Your task to perform on an android device: Go to display settings Image 0: 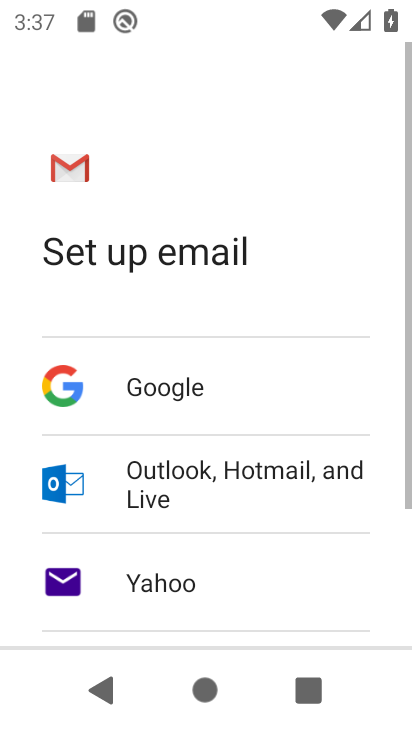
Step 0: press home button
Your task to perform on an android device: Go to display settings Image 1: 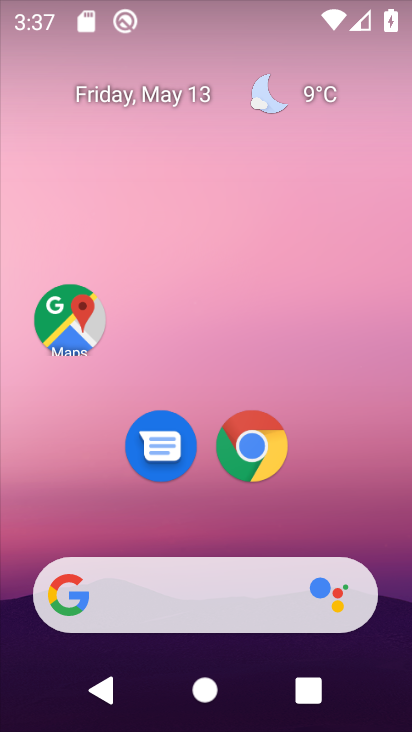
Step 1: drag from (311, 516) to (343, 96)
Your task to perform on an android device: Go to display settings Image 2: 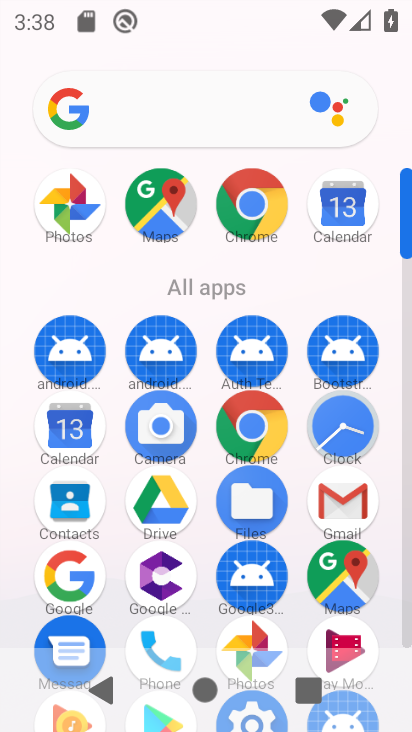
Step 2: drag from (249, 652) to (258, 359)
Your task to perform on an android device: Go to display settings Image 3: 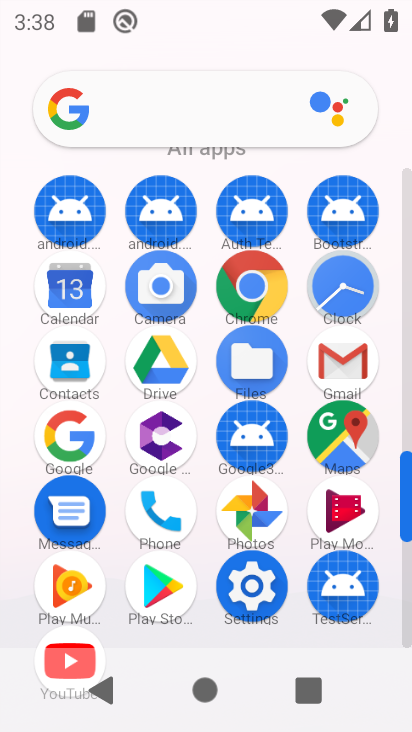
Step 3: click (247, 591)
Your task to perform on an android device: Go to display settings Image 4: 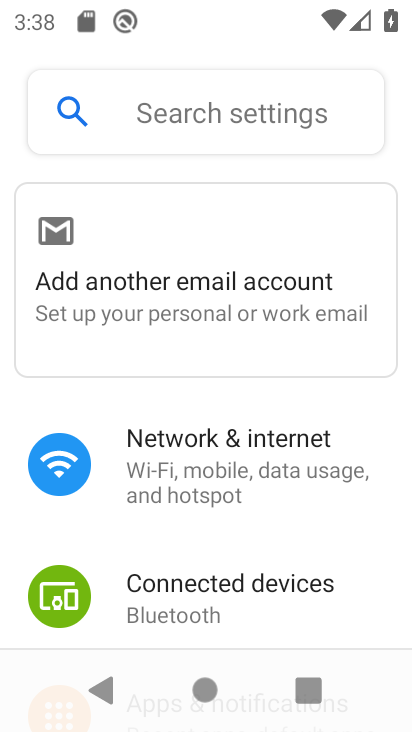
Step 4: drag from (242, 591) to (275, 249)
Your task to perform on an android device: Go to display settings Image 5: 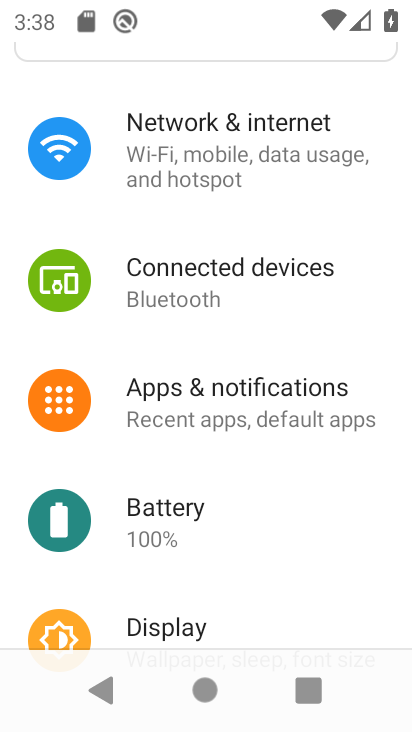
Step 5: click (218, 616)
Your task to perform on an android device: Go to display settings Image 6: 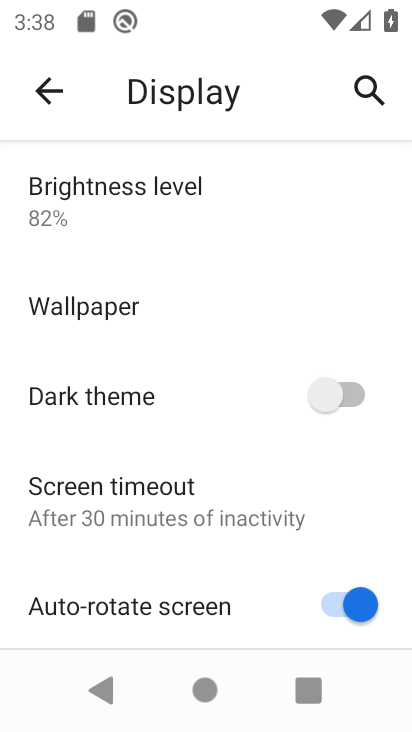
Step 6: task complete